Your task to perform on an android device: Check the weather Image 0: 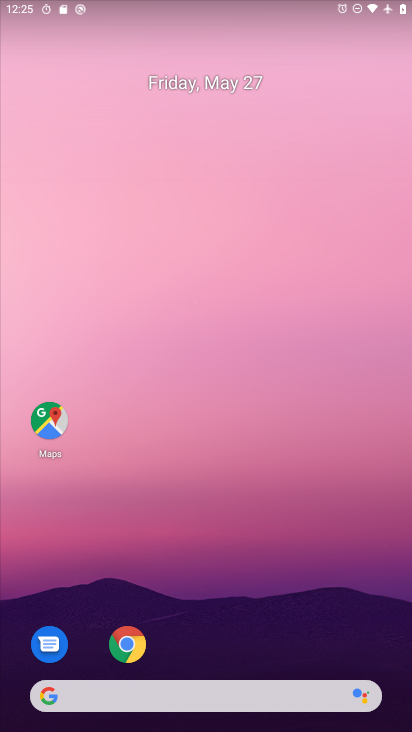
Step 0: drag from (201, 646) to (169, 183)
Your task to perform on an android device: Check the weather Image 1: 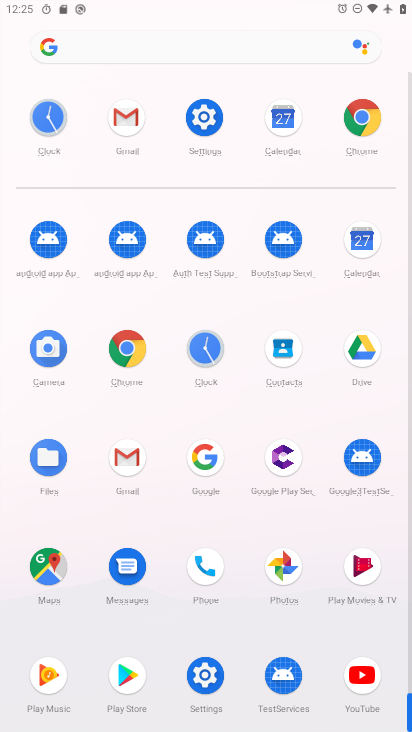
Step 1: click (191, 443)
Your task to perform on an android device: Check the weather Image 2: 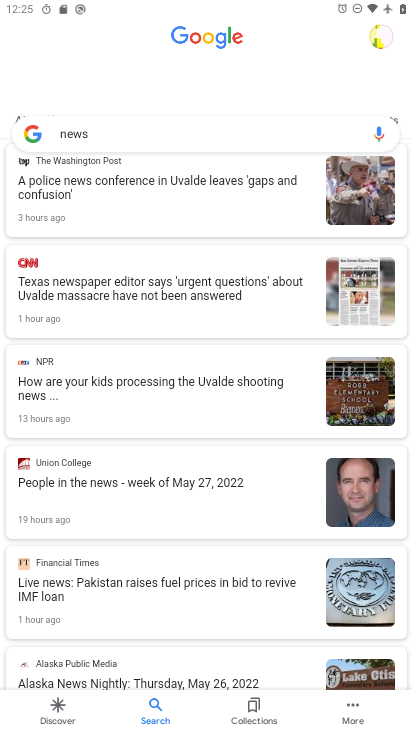
Step 2: click (153, 136)
Your task to perform on an android device: Check the weather Image 3: 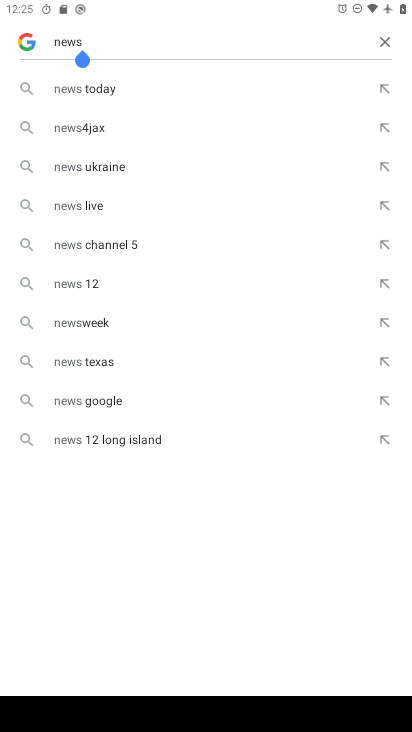
Step 3: click (385, 47)
Your task to perform on an android device: Check the weather Image 4: 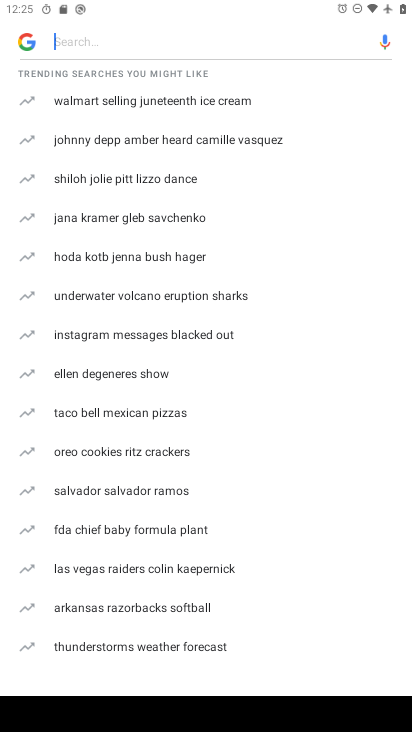
Step 4: click (138, 45)
Your task to perform on an android device: Check the weather Image 5: 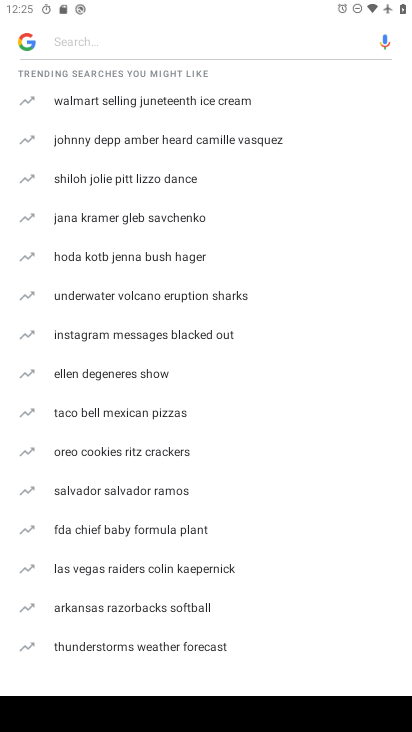
Step 5: type "weather"
Your task to perform on an android device: Check the weather Image 6: 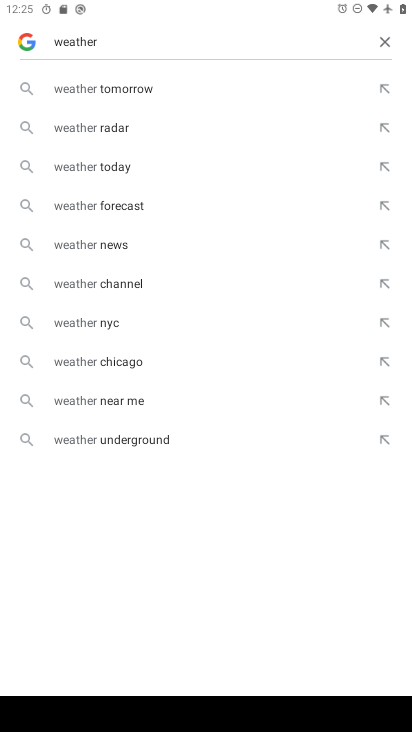
Step 6: click (138, 90)
Your task to perform on an android device: Check the weather Image 7: 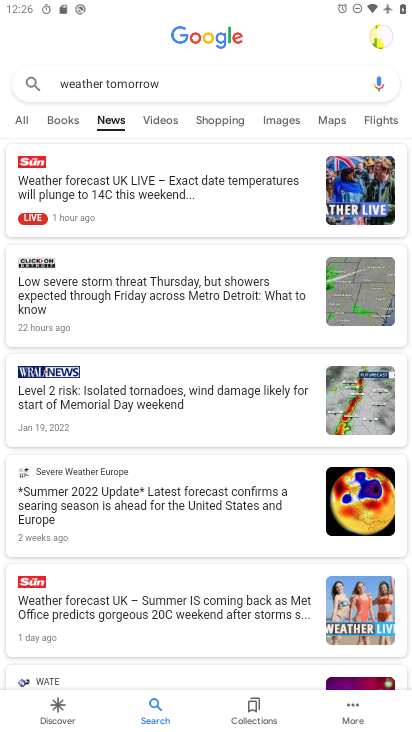
Step 7: click (25, 125)
Your task to perform on an android device: Check the weather Image 8: 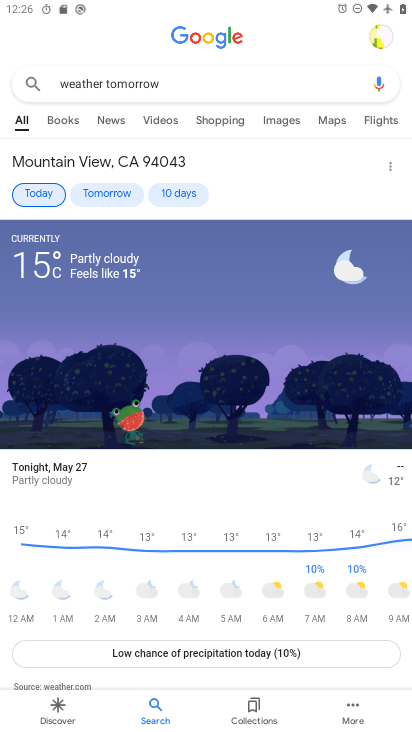
Step 8: task complete